Your task to perform on an android device: check out phone information Image 0: 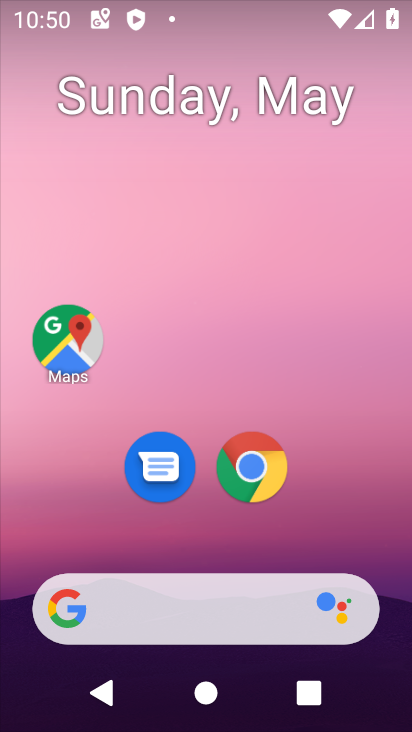
Step 0: drag from (381, 537) to (390, 25)
Your task to perform on an android device: check out phone information Image 1: 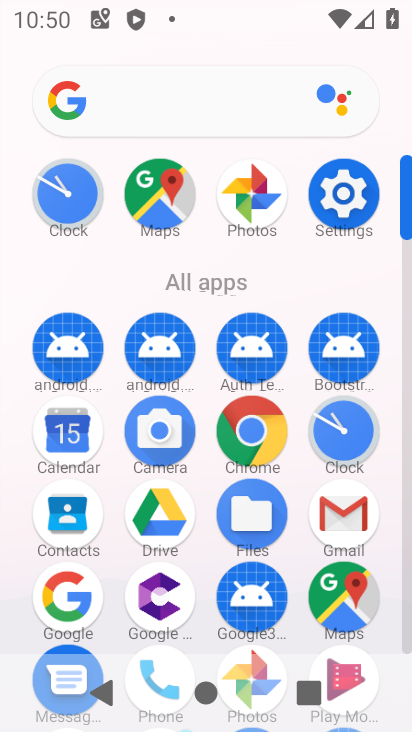
Step 1: click (345, 206)
Your task to perform on an android device: check out phone information Image 2: 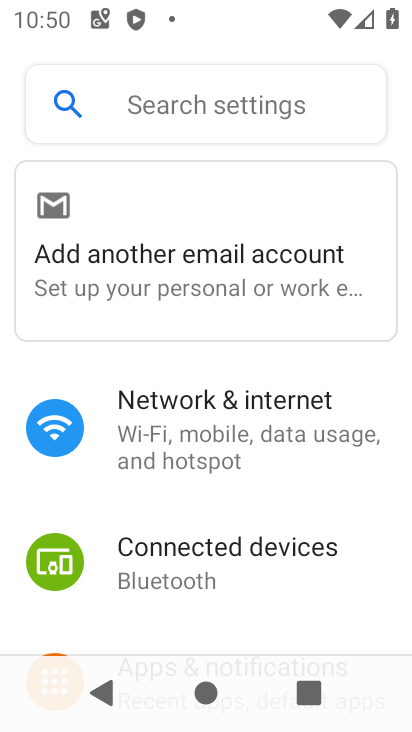
Step 2: drag from (364, 562) to (344, 56)
Your task to perform on an android device: check out phone information Image 3: 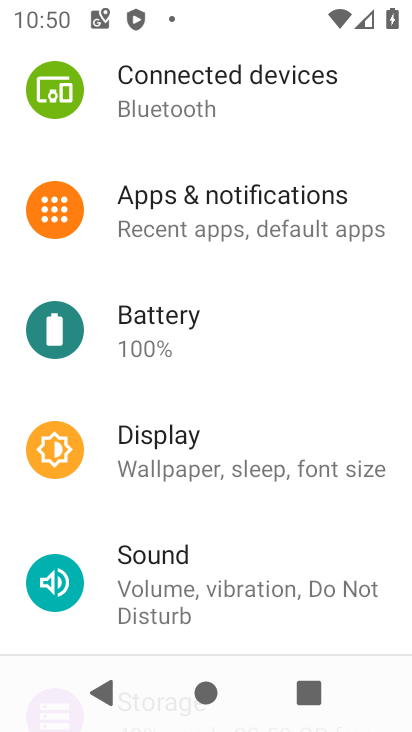
Step 3: drag from (382, 578) to (386, 102)
Your task to perform on an android device: check out phone information Image 4: 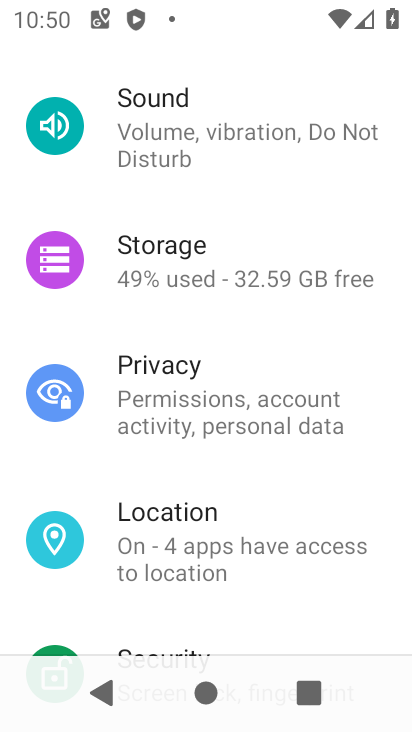
Step 4: drag from (372, 541) to (363, 143)
Your task to perform on an android device: check out phone information Image 5: 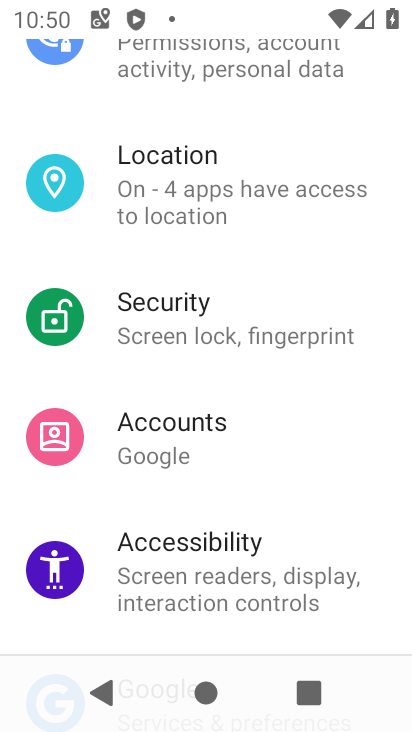
Step 5: drag from (369, 565) to (348, 130)
Your task to perform on an android device: check out phone information Image 6: 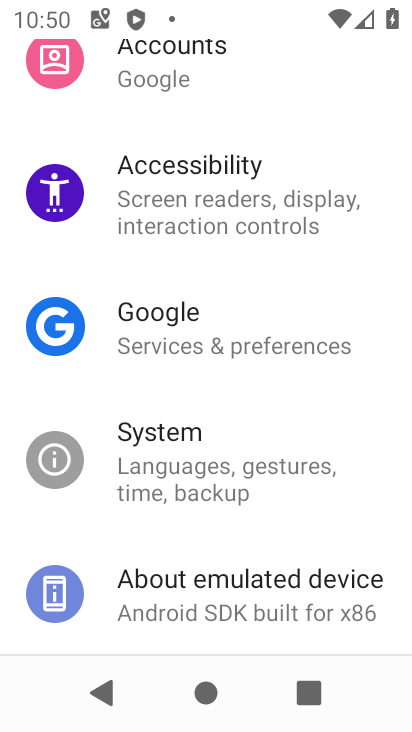
Step 6: drag from (289, 601) to (292, 358)
Your task to perform on an android device: check out phone information Image 7: 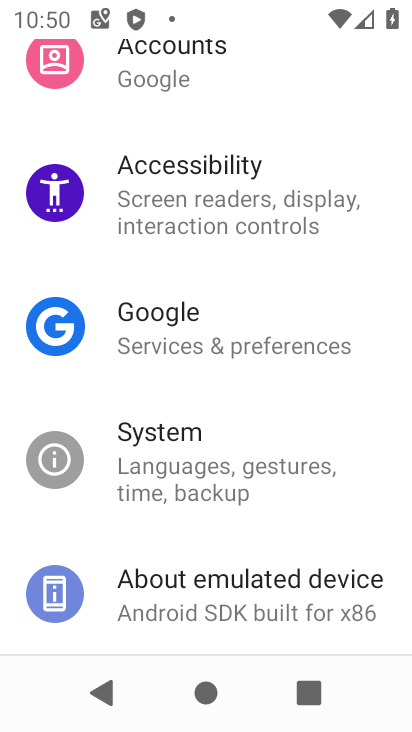
Step 7: click (197, 580)
Your task to perform on an android device: check out phone information Image 8: 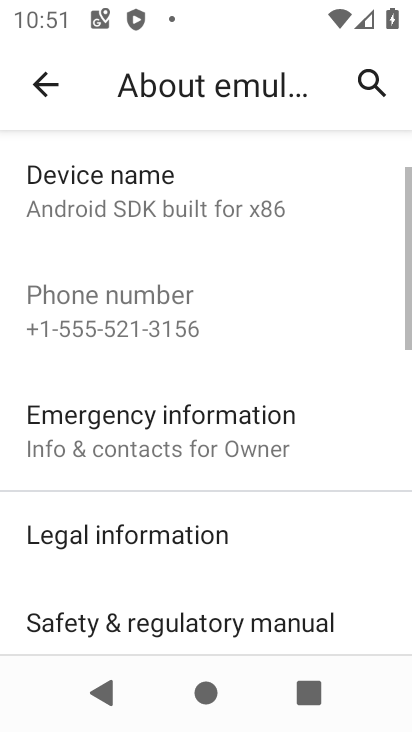
Step 8: task complete